Your task to perform on an android device: turn on notifications settings in the gmail app Image 0: 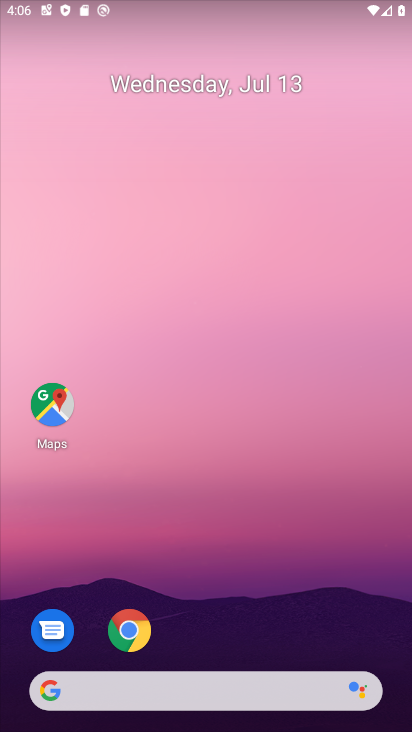
Step 0: drag from (221, 644) to (228, 109)
Your task to perform on an android device: turn on notifications settings in the gmail app Image 1: 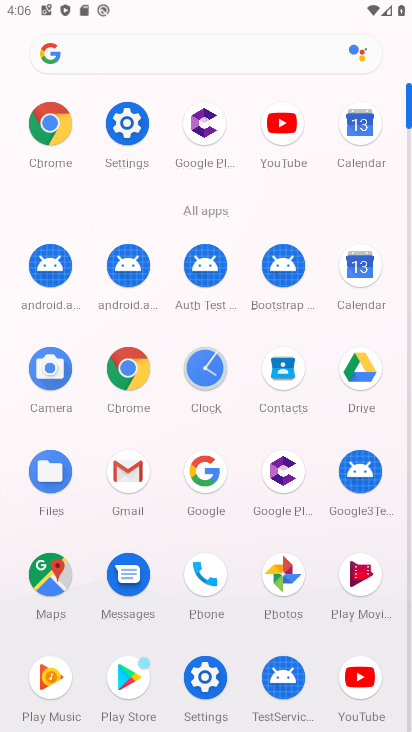
Step 1: click (123, 474)
Your task to perform on an android device: turn on notifications settings in the gmail app Image 2: 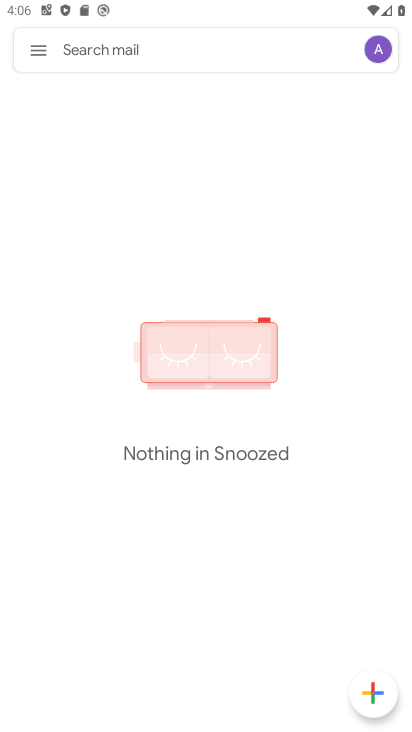
Step 2: click (38, 48)
Your task to perform on an android device: turn on notifications settings in the gmail app Image 3: 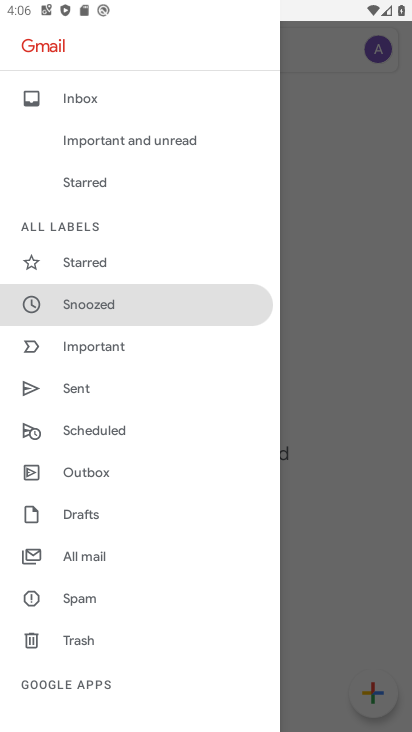
Step 3: drag from (92, 672) to (120, 165)
Your task to perform on an android device: turn on notifications settings in the gmail app Image 4: 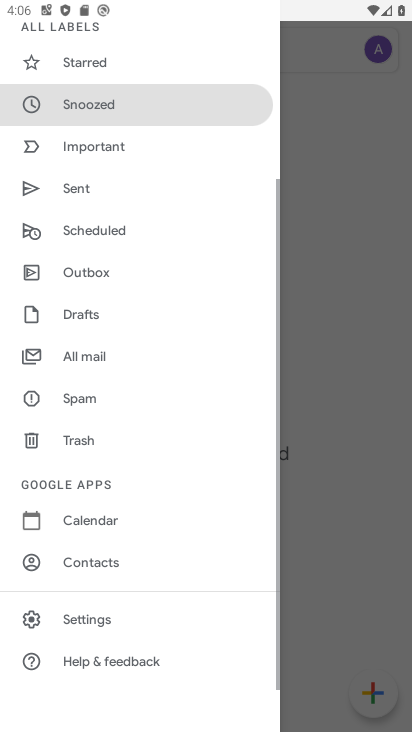
Step 4: click (96, 621)
Your task to perform on an android device: turn on notifications settings in the gmail app Image 5: 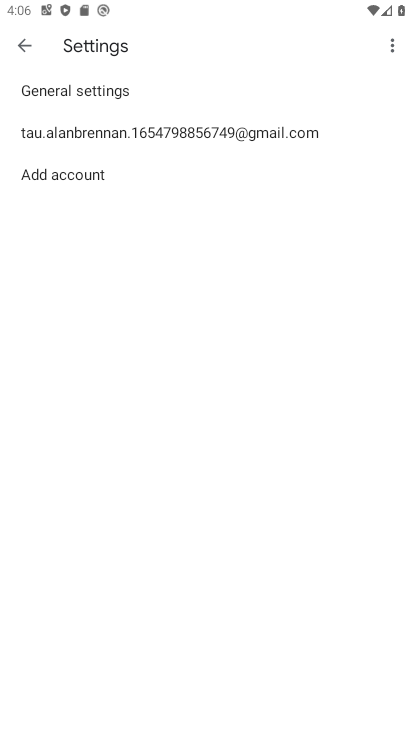
Step 5: click (170, 133)
Your task to perform on an android device: turn on notifications settings in the gmail app Image 6: 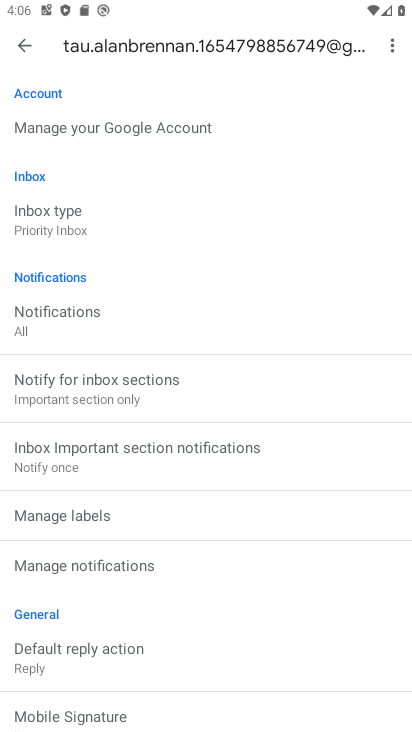
Step 6: click (84, 566)
Your task to perform on an android device: turn on notifications settings in the gmail app Image 7: 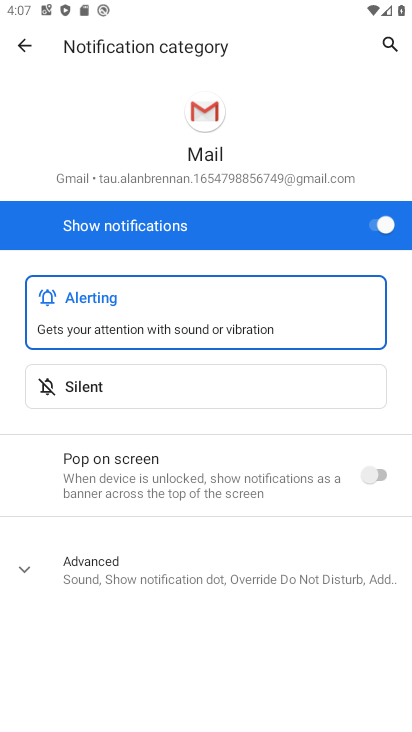
Step 7: task complete